Your task to perform on an android device: turn off picture-in-picture Image 0: 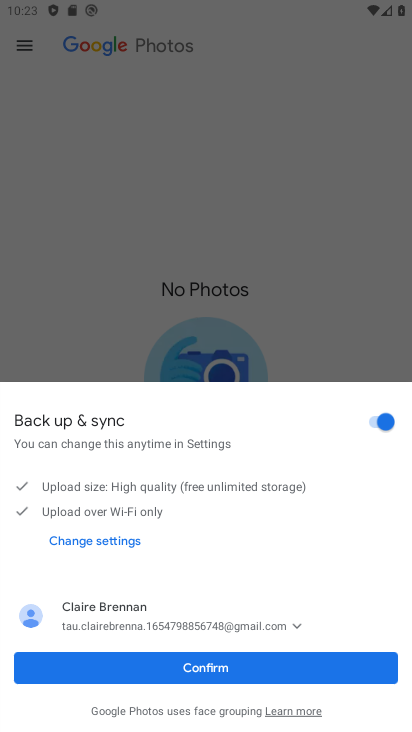
Step 0: press home button
Your task to perform on an android device: turn off picture-in-picture Image 1: 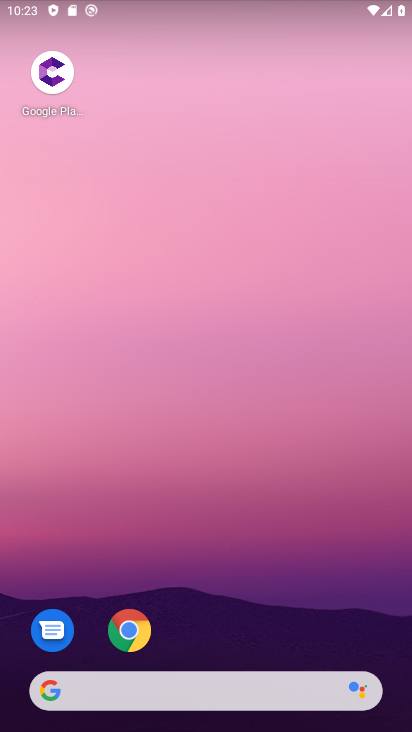
Step 1: drag from (340, 644) to (274, 209)
Your task to perform on an android device: turn off picture-in-picture Image 2: 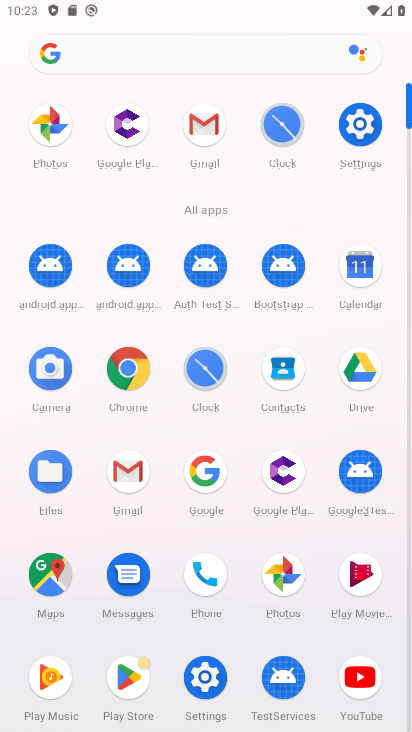
Step 2: click (201, 683)
Your task to perform on an android device: turn off picture-in-picture Image 3: 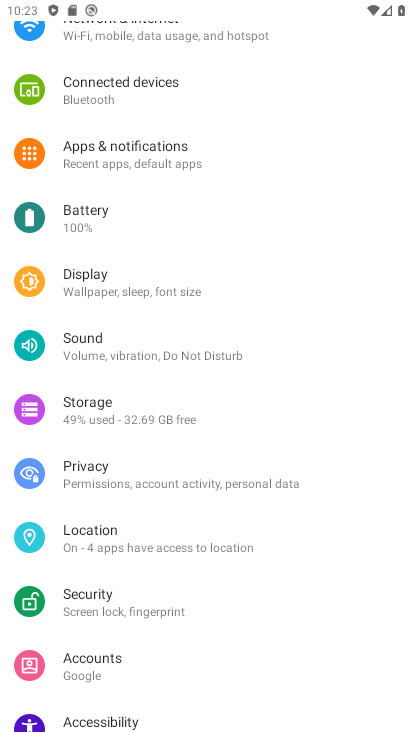
Step 3: click (144, 144)
Your task to perform on an android device: turn off picture-in-picture Image 4: 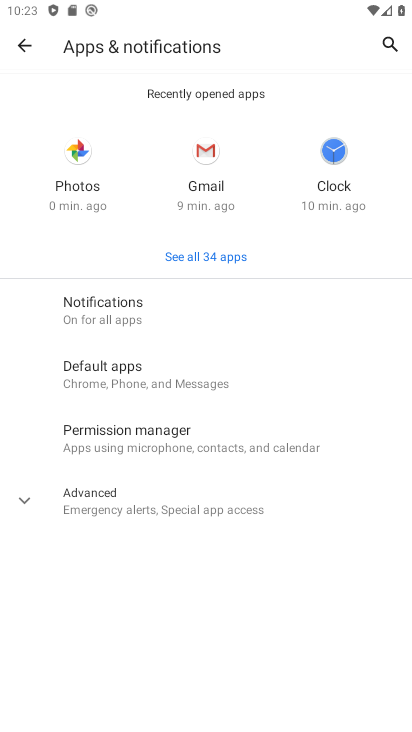
Step 4: click (25, 496)
Your task to perform on an android device: turn off picture-in-picture Image 5: 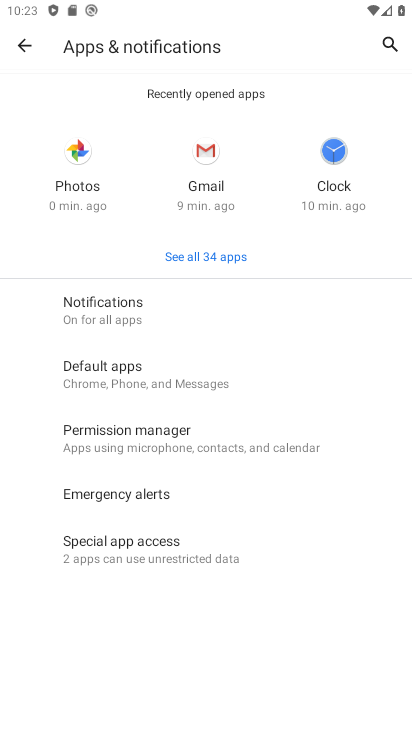
Step 5: click (114, 541)
Your task to perform on an android device: turn off picture-in-picture Image 6: 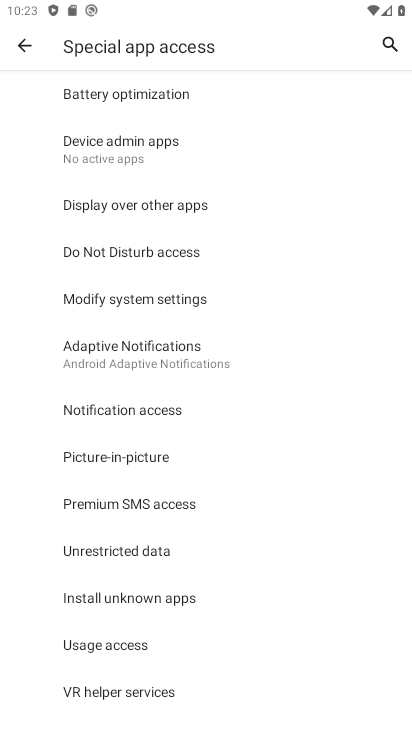
Step 6: click (105, 462)
Your task to perform on an android device: turn off picture-in-picture Image 7: 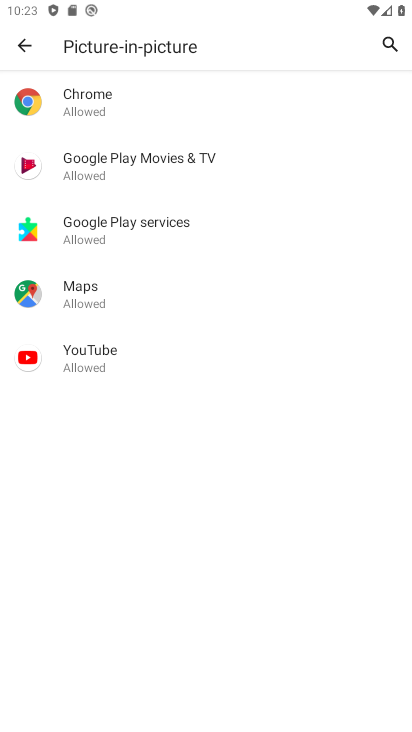
Step 7: click (116, 355)
Your task to perform on an android device: turn off picture-in-picture Image 8: 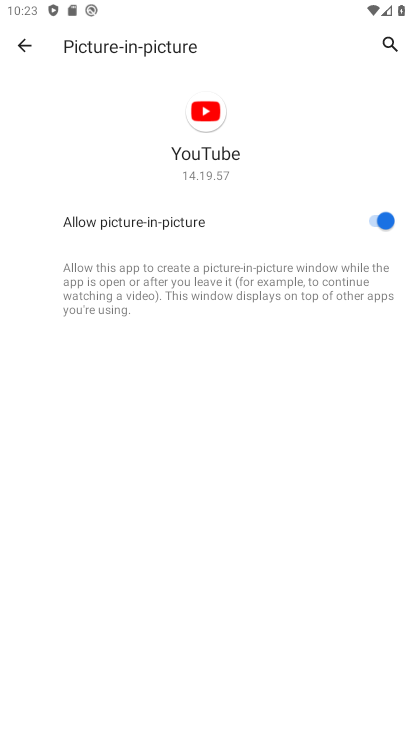
Step 8: click (368, 216)
Your task to perform on an android device: turn off picture-in-picture Image 9: 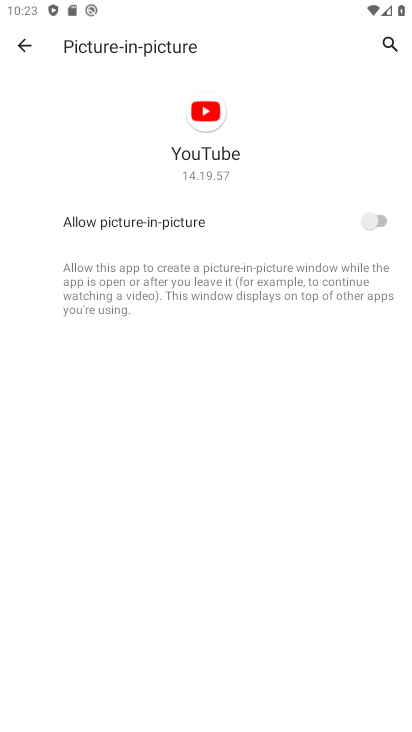
Step 9: task complete